Your task to perform on an android device: Go to Yahoo.com Image 0: 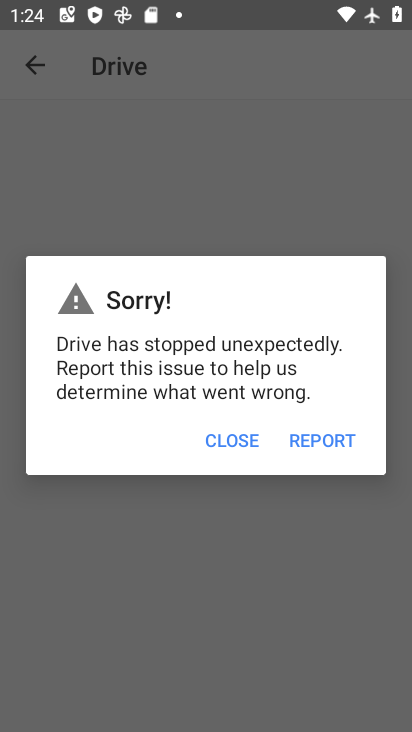
Step 0: press home button
Your task to perform on an android device: Go to Yahoo.com Image 1: 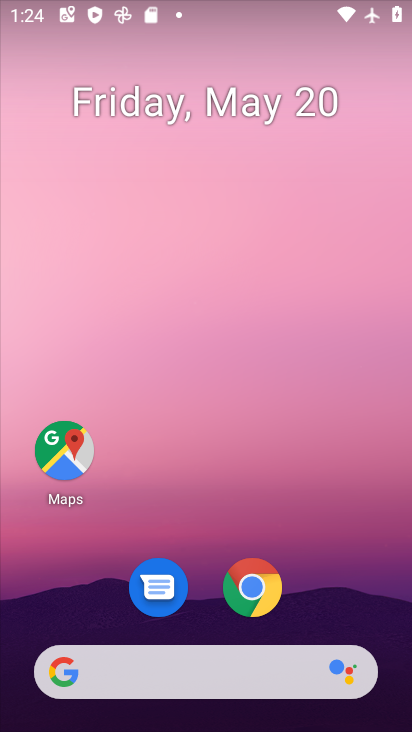
Step 1: click (258, 581)
Your task to perform on an android device: Go to Yahoo.com Image 2: 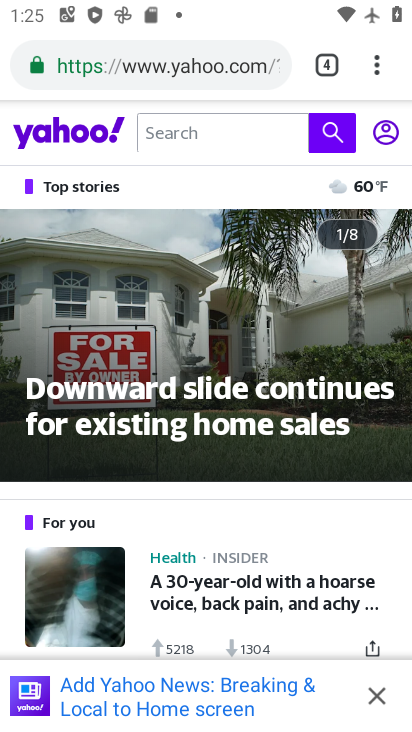
Step 2: drag from (309, 541) to (262, 231)
Your task to perform on an android device: Go to Yahoo.com Image 3: 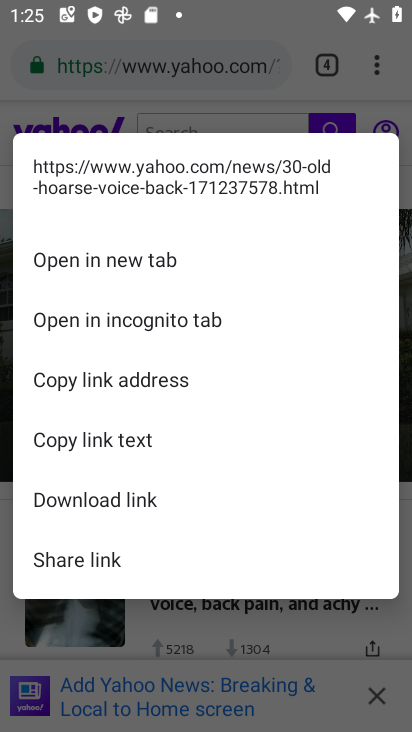
Step 3: click (301, 639)
Your task to perform on an android device: Go to Yahoo.com Image 4: 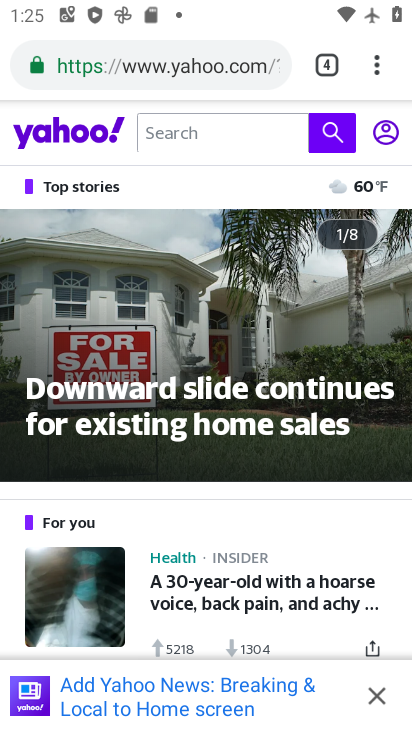
Step 4: task complete